Your task to perform on an android device: see creations saved in the google photos Image 0: 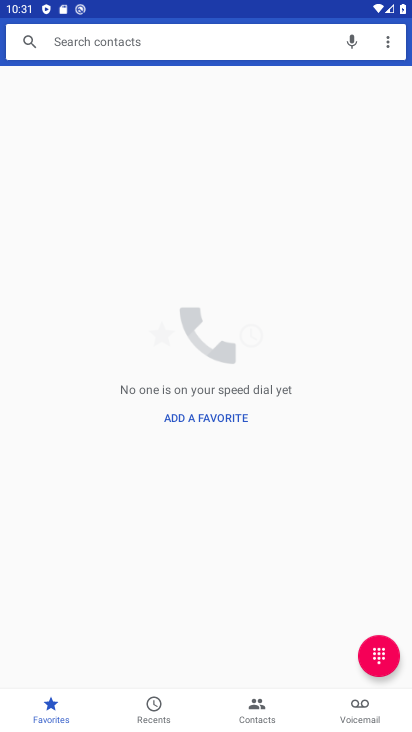
Step 0: press home button
Your task to perform on an android device: see creations saved in the google photos Image 1: 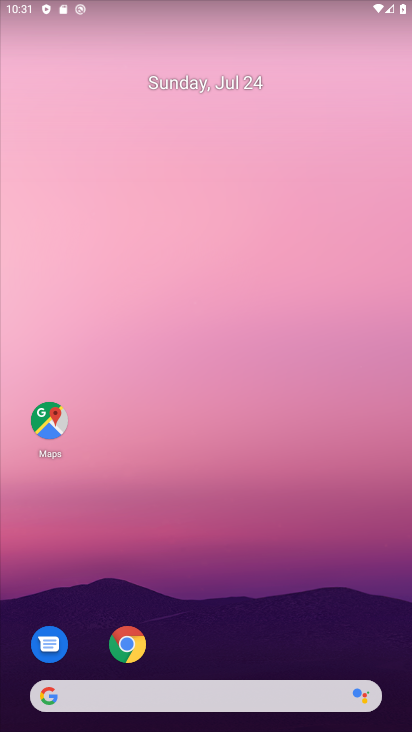
Step 1: drag from (211, 669) to (165, 281)
Your task to perform on an android device: see creations saved in the google photos Image 2: 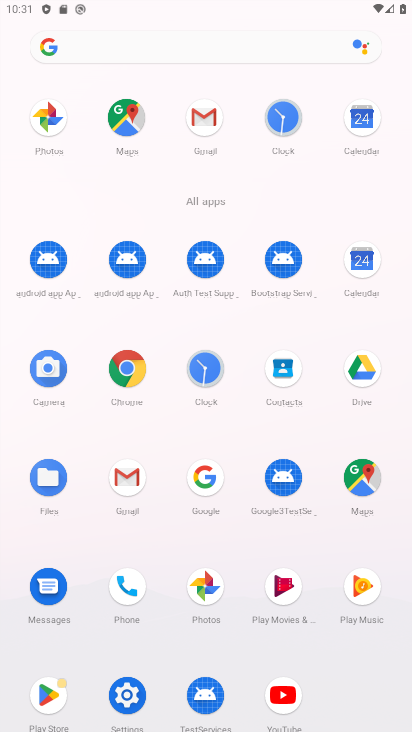
Step 2: click (202, 583)
Your task to perform on an android device: see creations saved in the google photos Image 3: 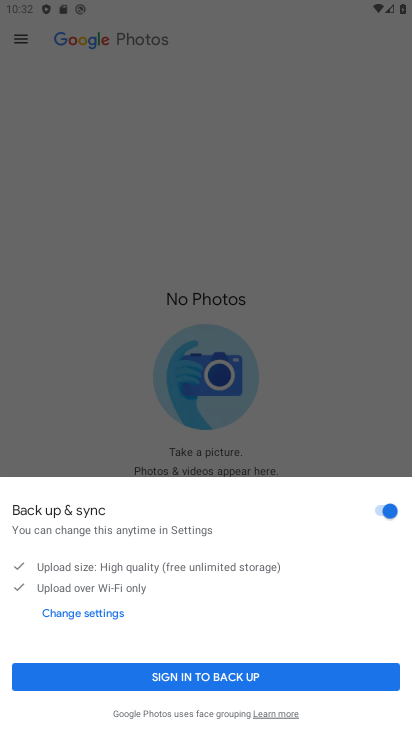
Step 3: click (172, 680)
Your task to perform on an android device: see creations saved in the google photos Image 4: 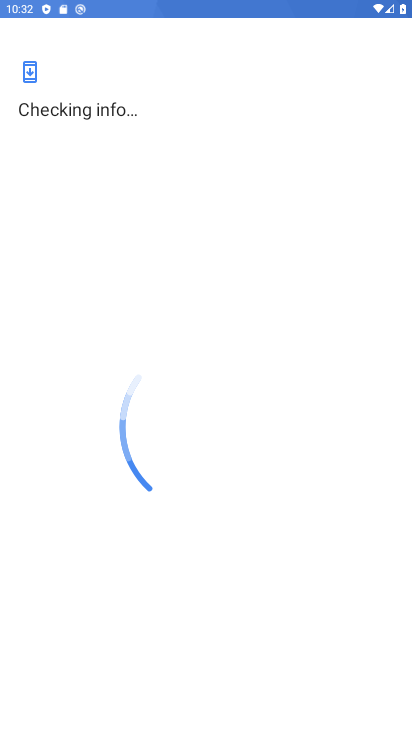
Step 4: task complete